Your task to perform on an android device: turn smart compose on in the gmail app Image 0: 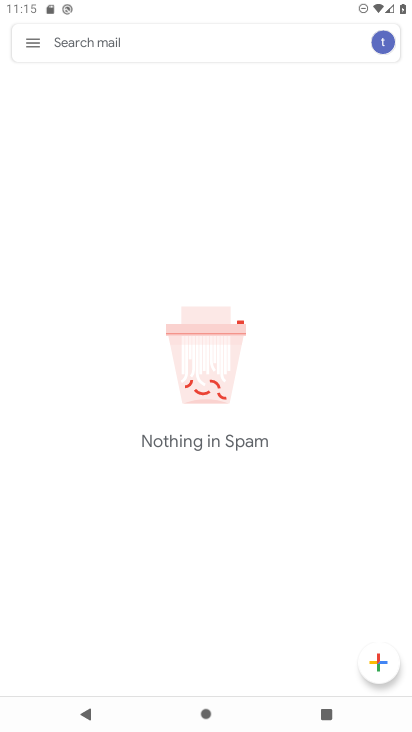
Step 0: click (30, 45)
Your task to perform on an android device: turn smart compose on in the gmail app Image 1: 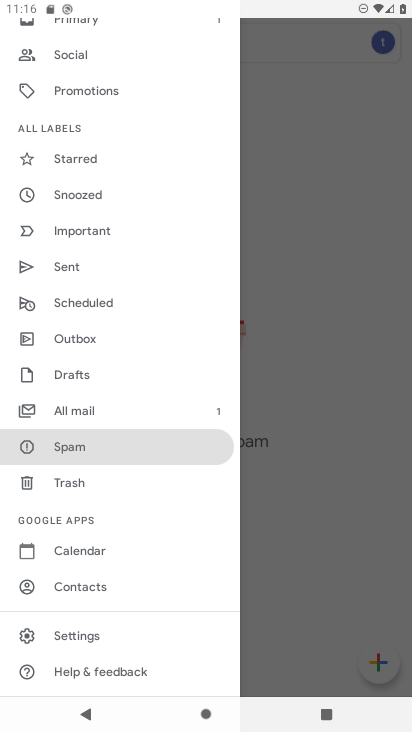
Step 1: click (84, 645)
Your task to perform on an android device: turn smart compose on in the gmail app Image 2: 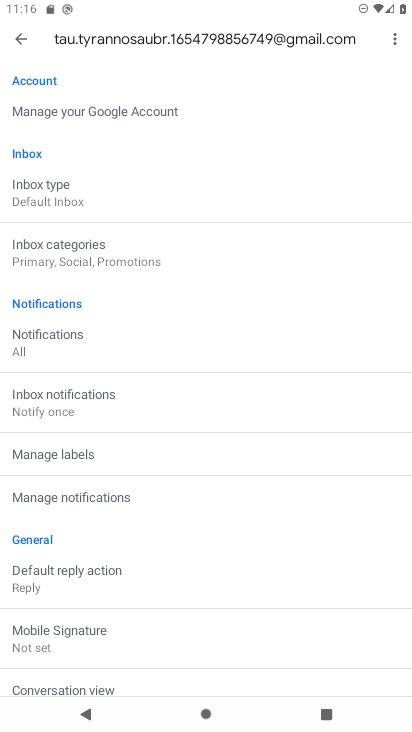
Step 2: task complete